Your task to perform on an android device: turn on airplane mode Image 0: 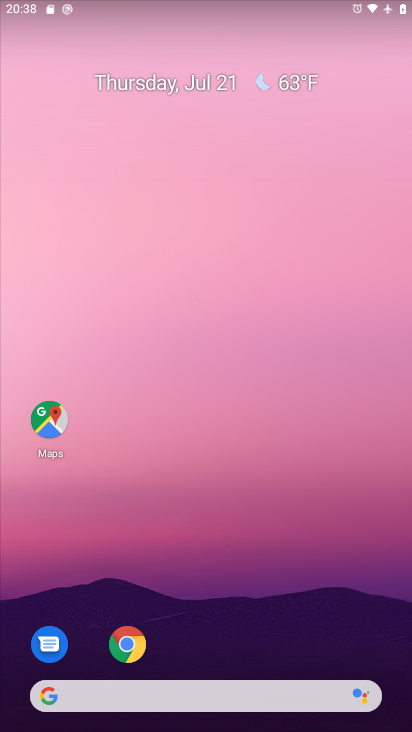
Step 0: drag from (138, 664) to (145, 289)
Your task to perform on an android device: turn on airplane mode Image 1: 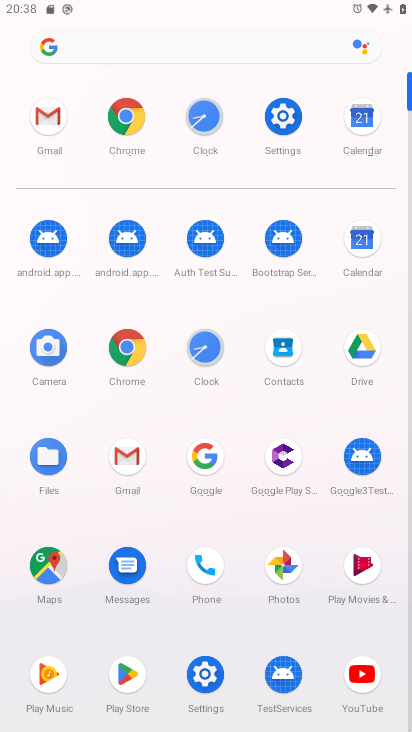
Step 1: click (283, 116)
Your task to perform on an android device: turn on airplane mode Image 2: 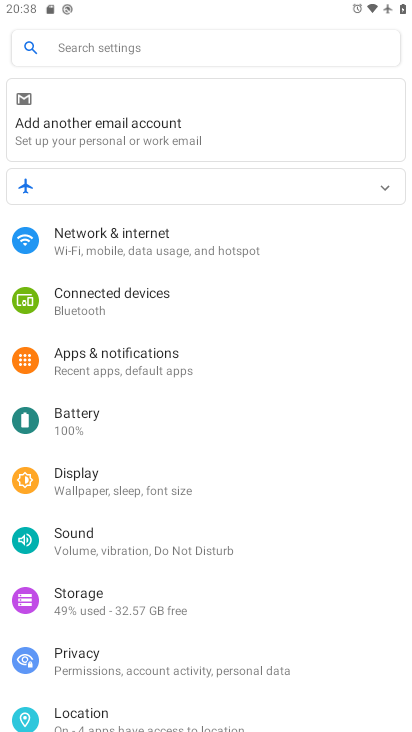
Step 2: click (128, 217)
Your task to perform on an android device: turn on airplane mode Image 3: 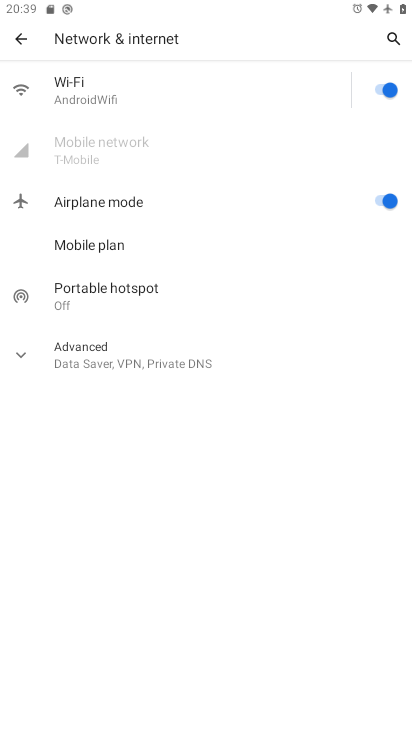
Step 3: task complete